Your task to perform on an android device: Open Wikipedia Image 0: 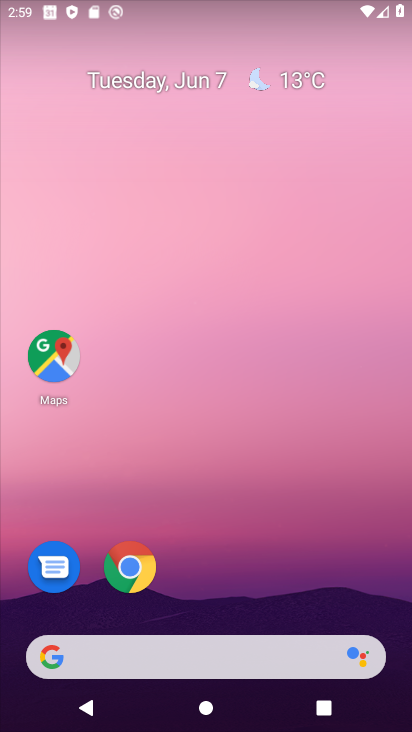
Step 0: click (125, 571)
Your task to perform on an android device: Open Wikipedia Image 1: 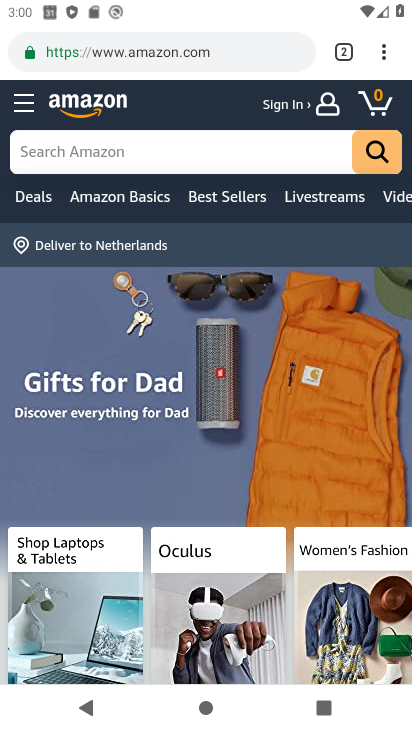
Step 1: click (336, 44)
Your task to perform on an android device: Open Wikipedia Image 2: 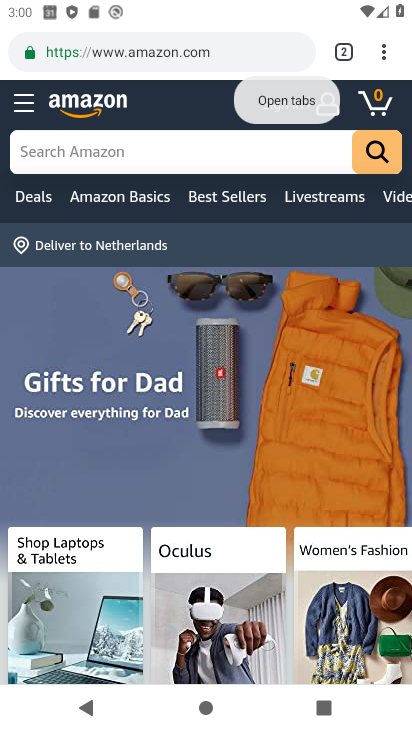
Step 2: click (345, 48)
Your task to perform on an android device: Open Wikipedia Image 3: 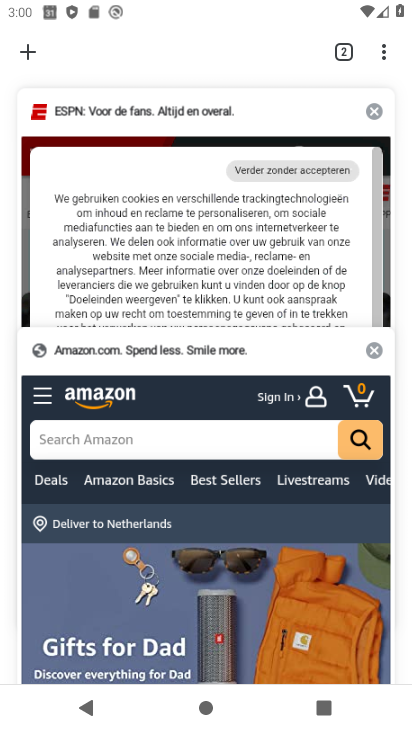
Step 3: click (13, 53)
Your task to perform on an android device: Open Wikipedia Image 4: 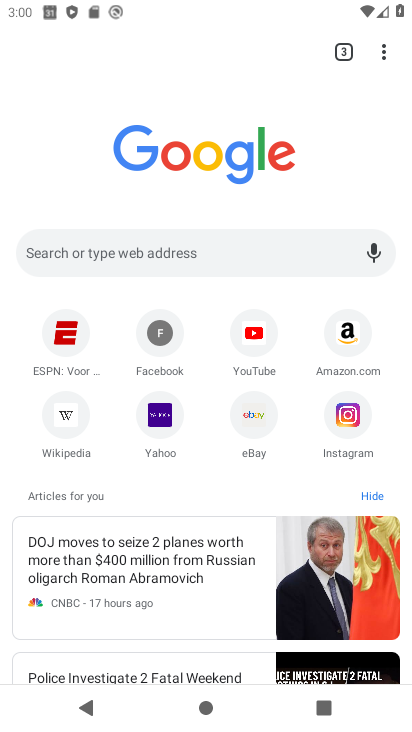
Step 4: click (71, 424)
Your task to perform on an android device: Open Wikipedia Image 5: 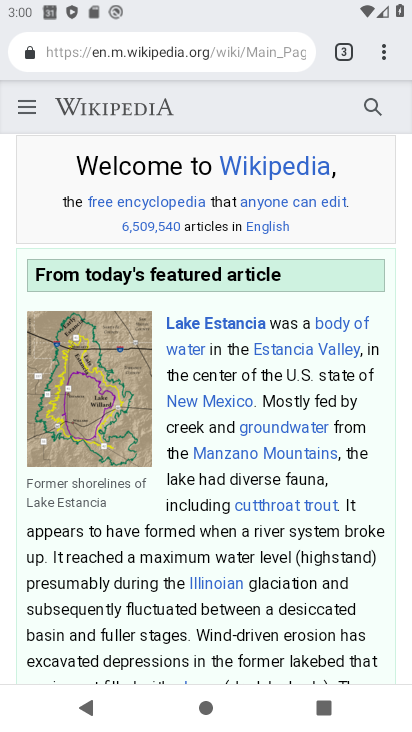
Step 5: task complete